Your task to perform on an android device: Open calendar and show me the first week of next month Image 0: 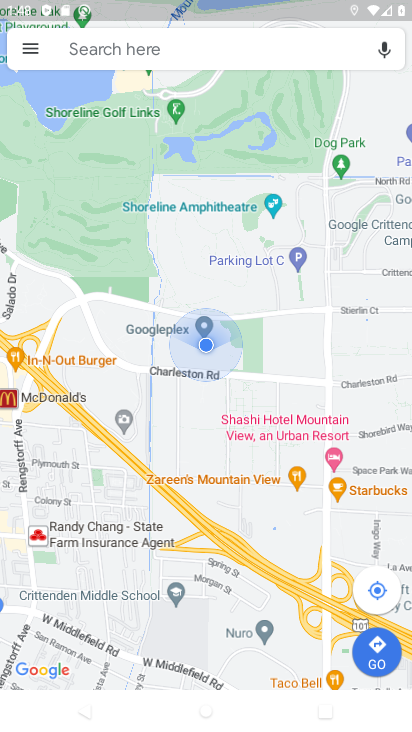
Step 0: press home button
Your task to perform on an android device: Open calendar and show me the first week of next month Image 1: 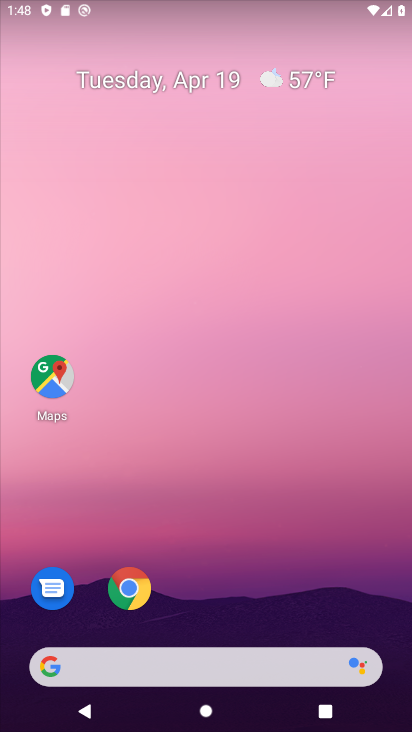
Step 1: drag from (215, 519) to (285, 75)
Your task to perform on an android device: Open calendar and show me the first week of next month Image 2: 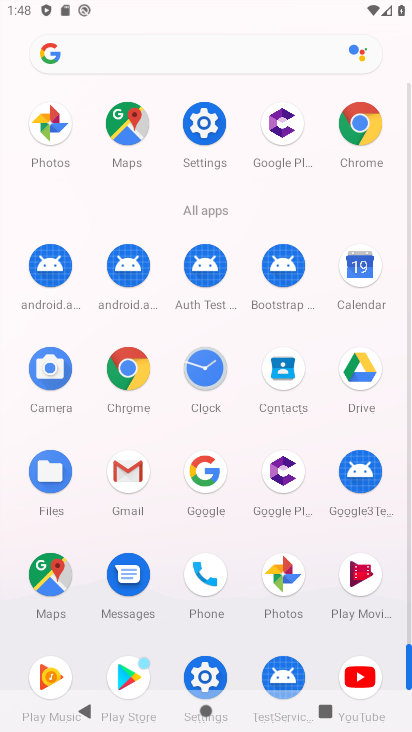
Step 2: click (357, 265)
Your task to perform on an android device: Open calendar and show me the first week of next month Image 3: 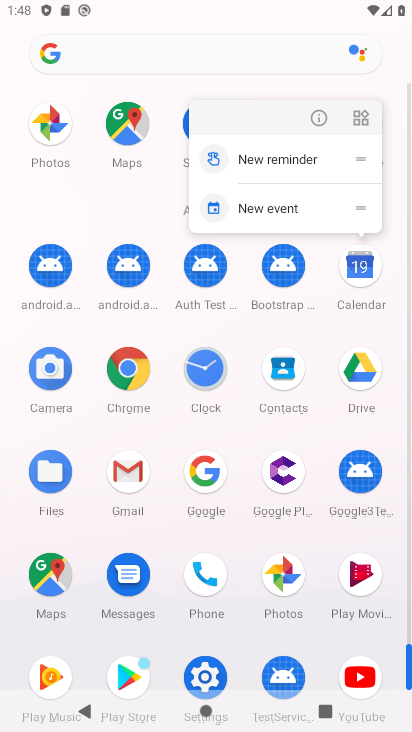
Step 3: click (359, 264)
Your task to perform on an android device: Open calendar and show me the first week of next month Image 4: 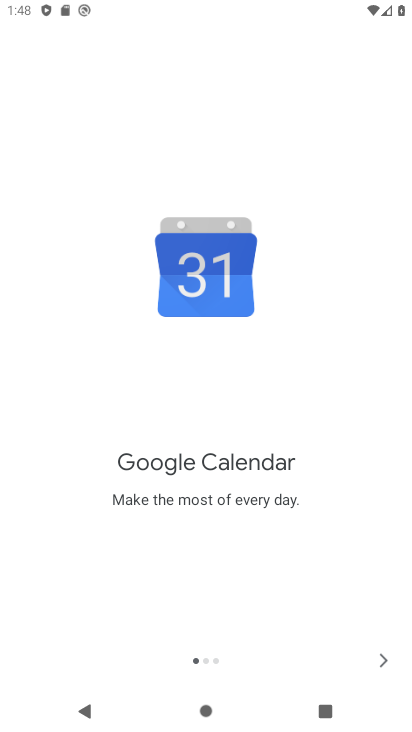
Step 4: click (379, 650)
Your task to perform on an android device: Open calendar and show me the first week of next month Image 5: 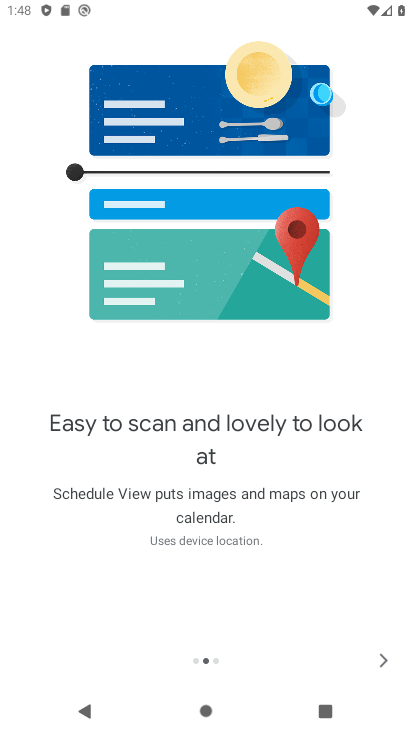
Step 5: click (379, 650)
Your task to perform on an android device: Open calendar and show me the first week of next month Image 6: 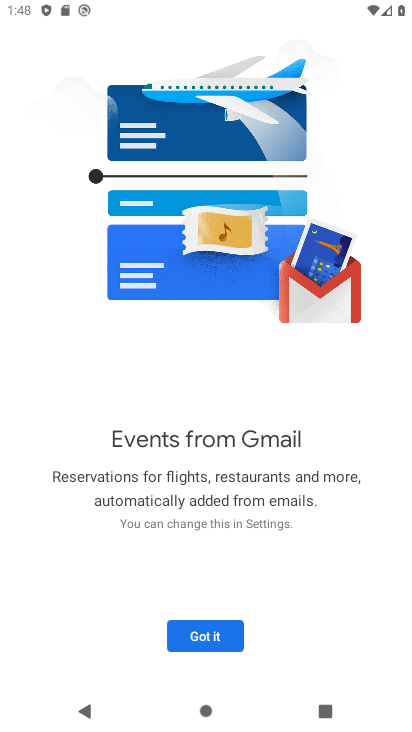
Step 6: click (225, 636)
Your task to perform on an android device: Open calendar and show me the first week of next month Image 7: 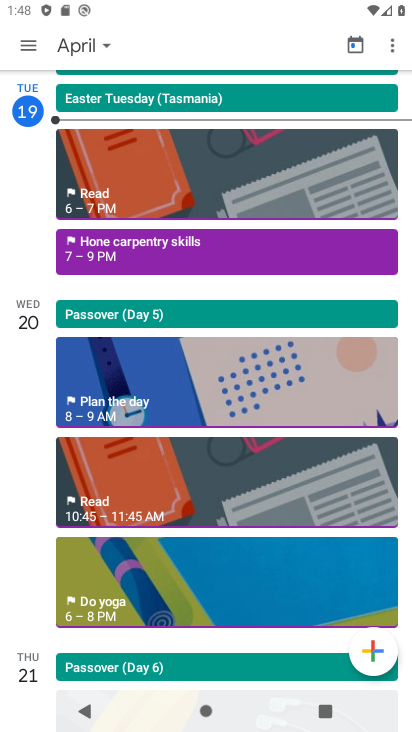
Step 7: click (30, 42)
Your task to perform on an android device: Open calendar and show me the first week of next month Image 8: 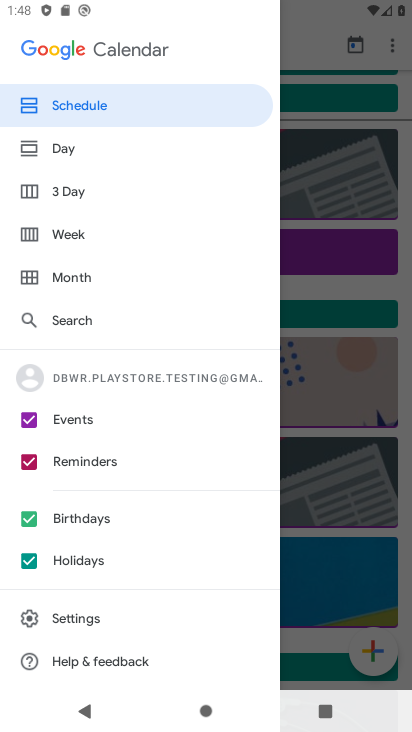
Step 8: click (37, 226)
Your task to perform on an android device: Open calendar and show me the first week of next month Image 9: 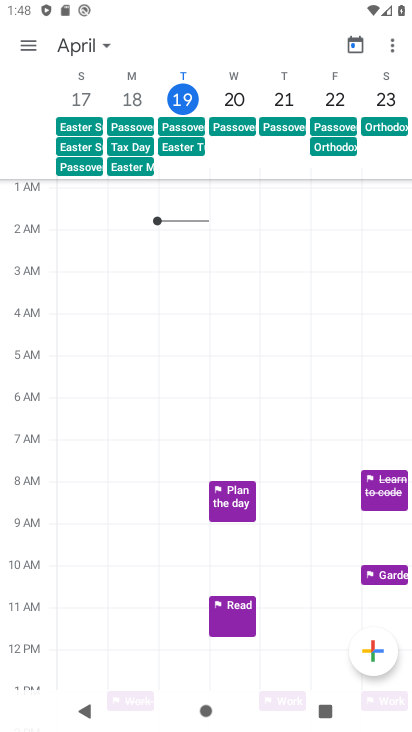
Step 9: task complete